Your task to perform on an android device: allow cookies in the chrome app Image 0: 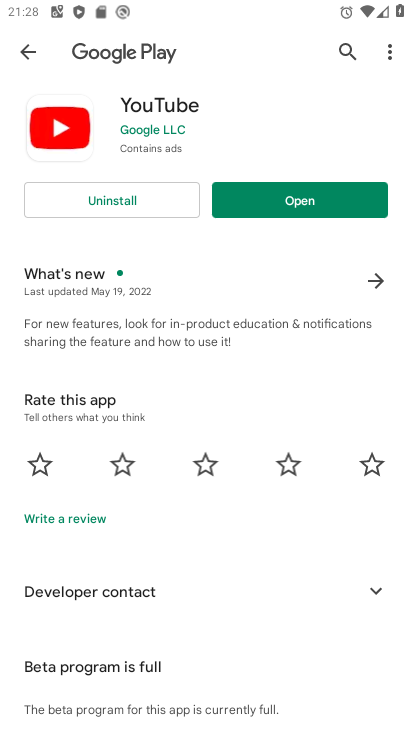
Step 0: press home button
Your task to perform on an android device: allow cookies in the chrome app Image 1: 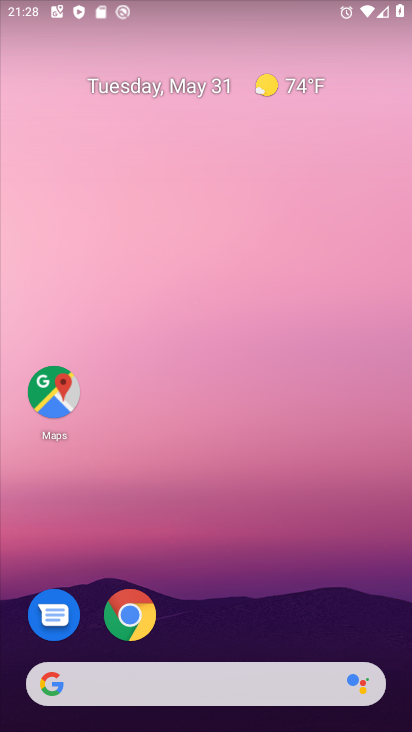
Step 1: click (128, 616)
Your task to perform on an android device: allow cookies in the chrome app Image 2: 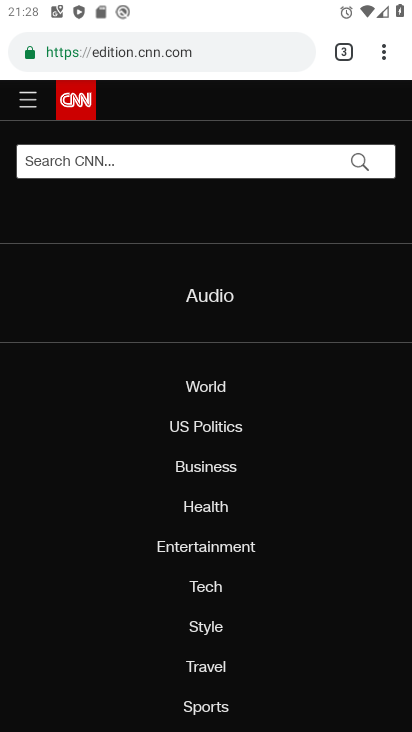
Step 2: drag from (388, 49) to (224, 571)
Your task to perform on an android device: allow cookies in the chrome app Image 3: 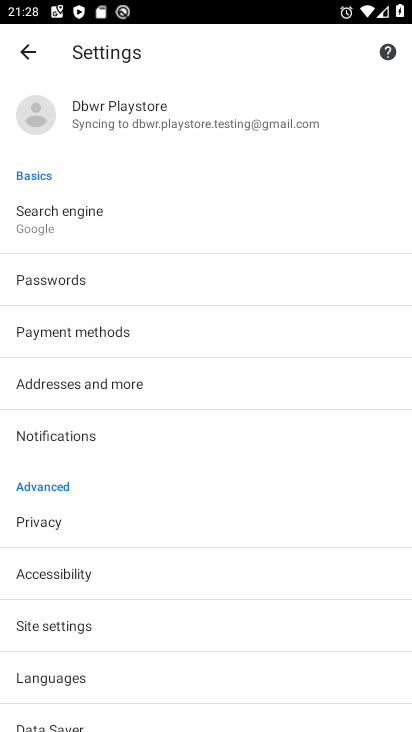
Step 3: click (119, 615)
Your task to perform on an android device: allow cookies in the chrome app Image 4: 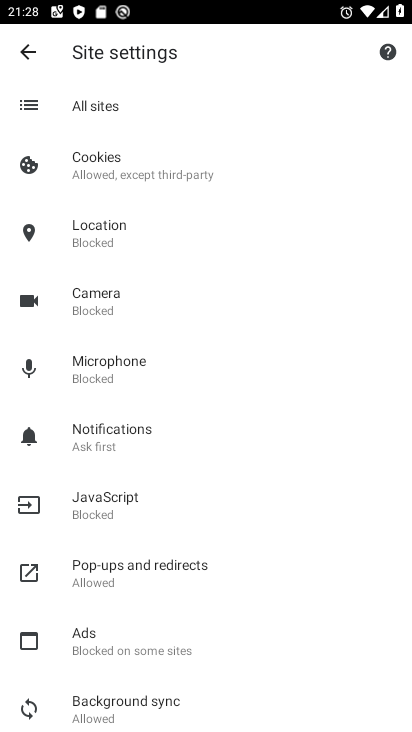
Step 4: click (137, 168)
Your task to perform on an android device: allow cookies in the chrome app Image 5: 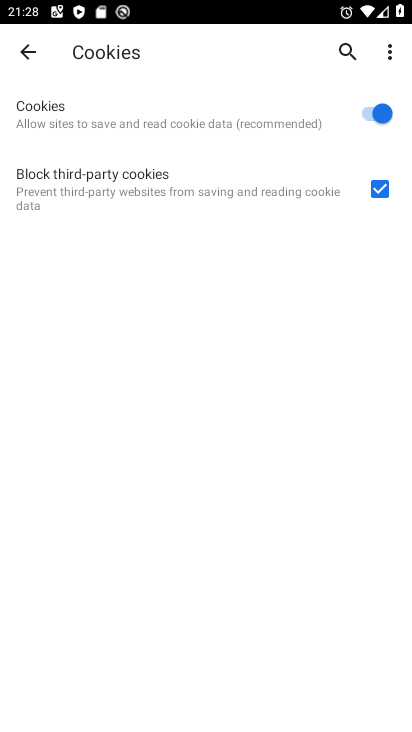
Step 5: task complete